Your task to perform on an android device: set the timer Image 0: 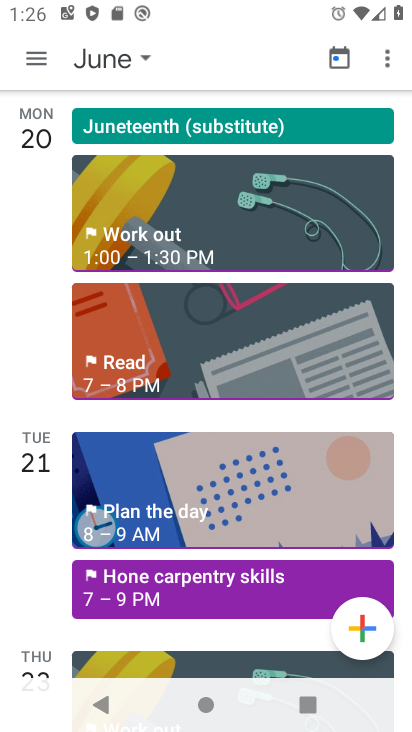
Step 0: press home button
Your task to perform on an android device: set the timer Image 1: 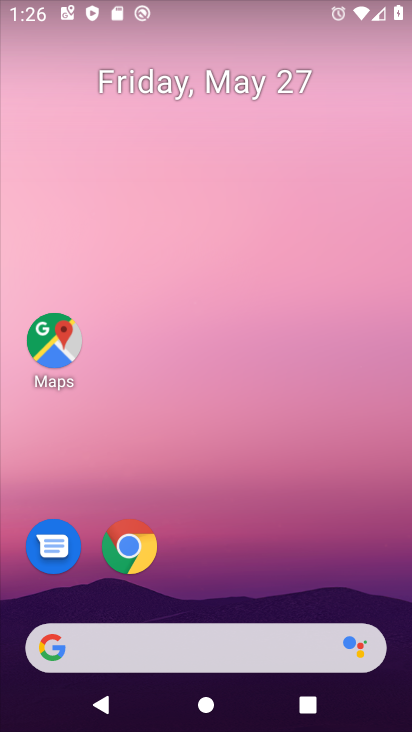
Step 1: drag from (266, 683) to (362, 0)
Your task to perform on an android device: set the timer Image 2: 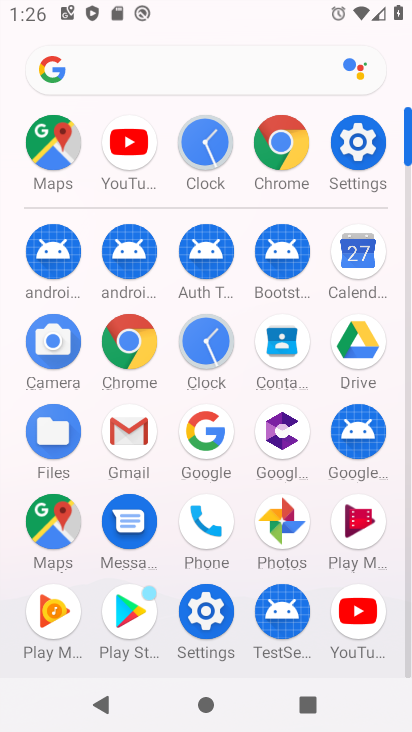
Step 2: click (211, 150)
Your task to perform on an android device: set the timer Image 3: 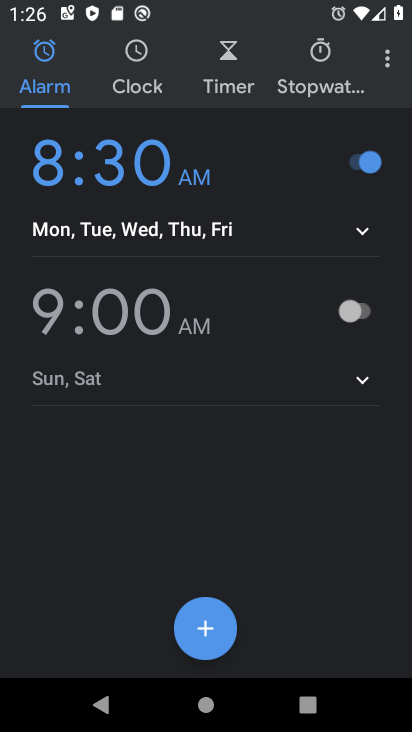
Step 3: click (238, 79)
Your task to perform on an android device: set the timer Image 4: 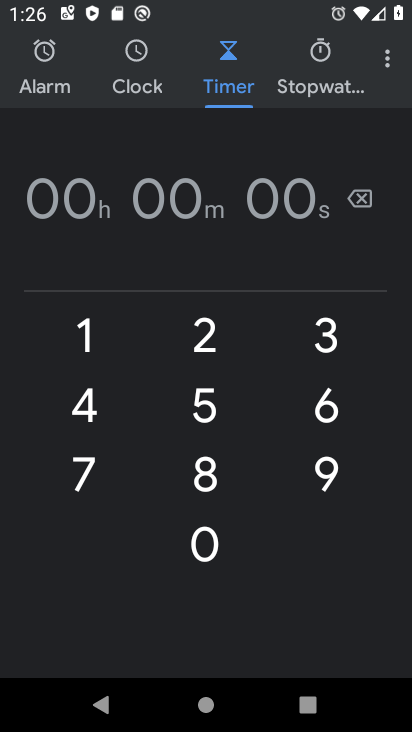
Step 4: click (201, 426)
Your task to perform on an android device: set the timer Image 5: 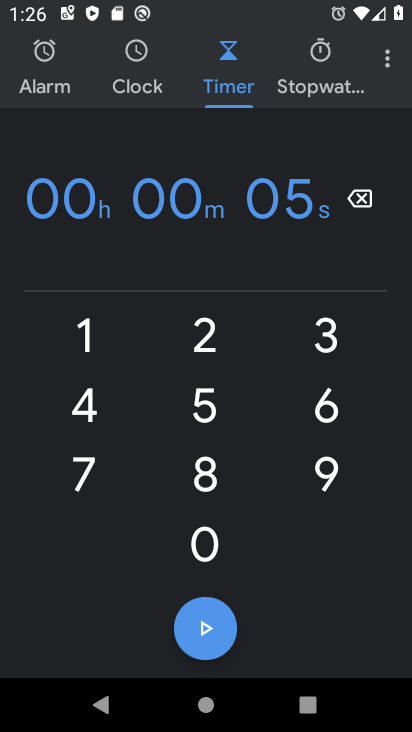
Step 5: click (96, 474)
Your task to perform on an android device: set the timer Image 6: 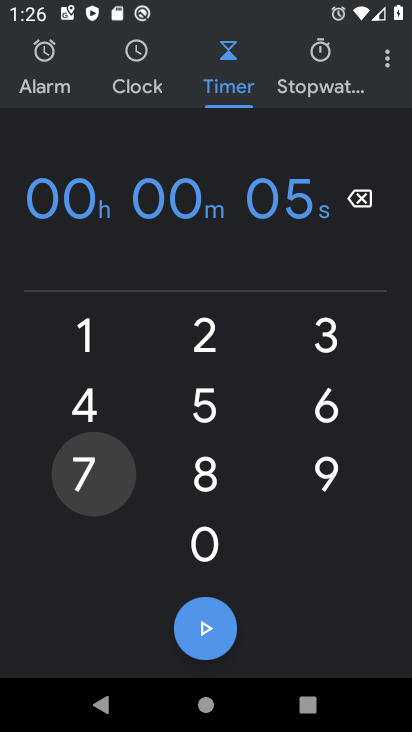
Step 6: click (75, 399)
Your task to perform on an android device: set the timer Image 7: 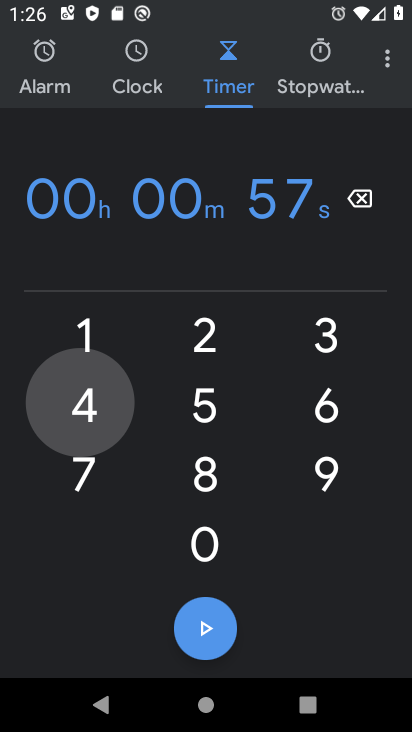
Step 7: click (202, 374)
Your task to perform on an android device: set the timer Image 8: 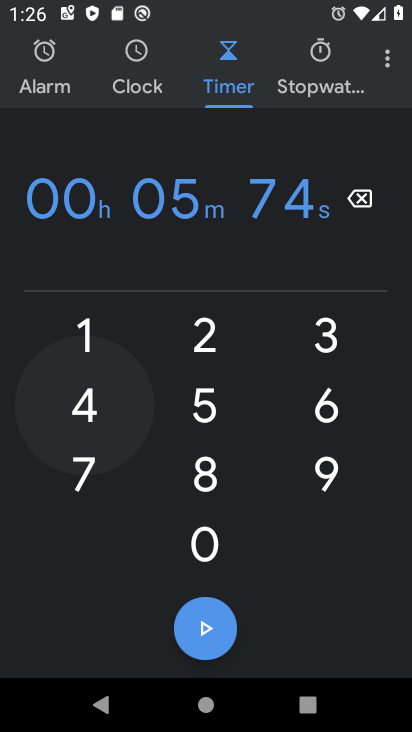
Step 8: click (240, 407)
Your task to perform on an android device: set the timer Image 9: 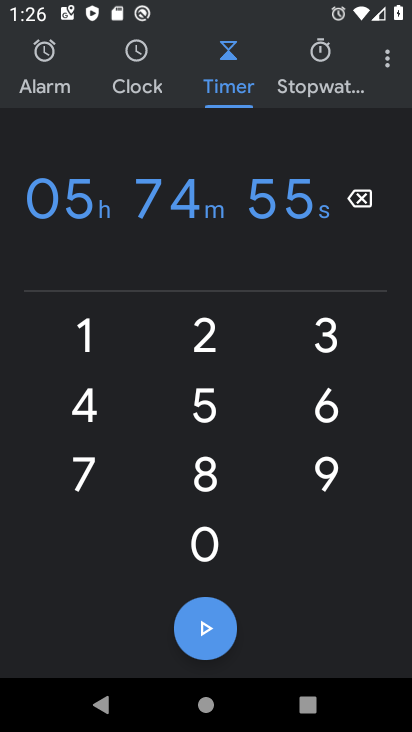
Step 9: task complete